Your task to perform on an android device: Open eBay Image 0: 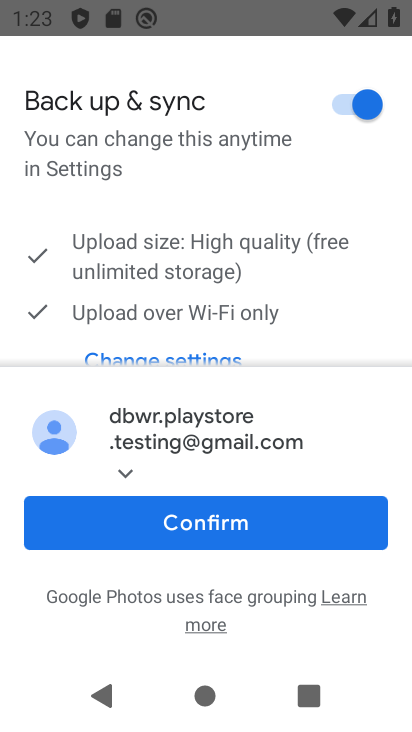
Step 0: press home button
Your task to perform on an android device: Open eBay Image 1: 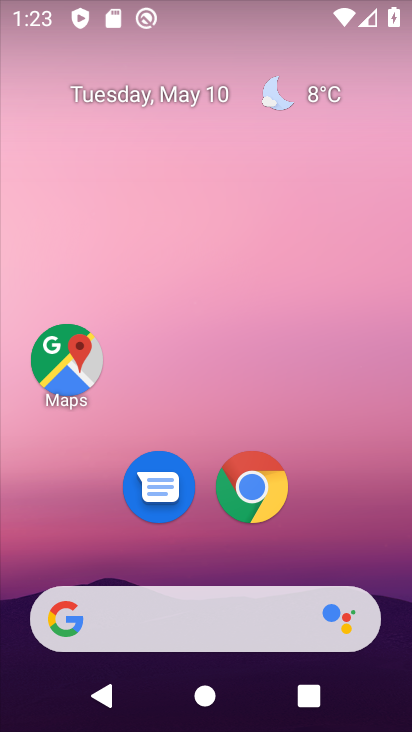
Step 1: drag from (311, 521) to (301, 49)
Your task to perform on an android device: Open eBay Image 2: 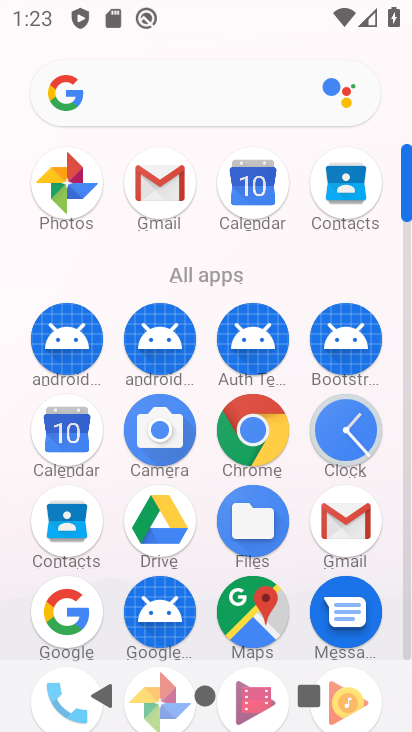
Step 2: click (236, 428)
Your task to perform on an android device: Open eBay Image 3: 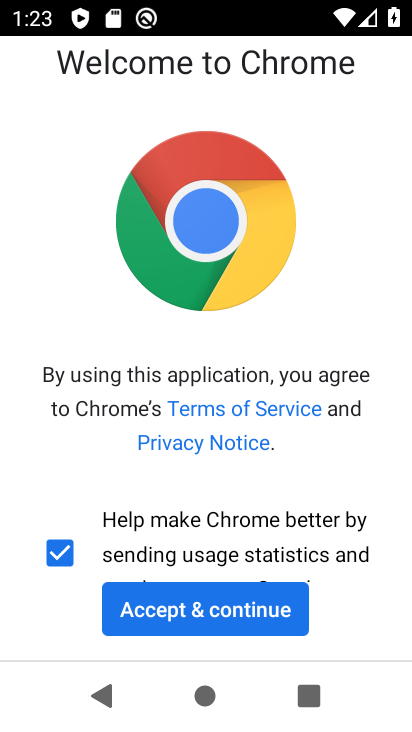
Step 3: click (227, 606)
Your task to perform on an android device: Open eBay Image 4: 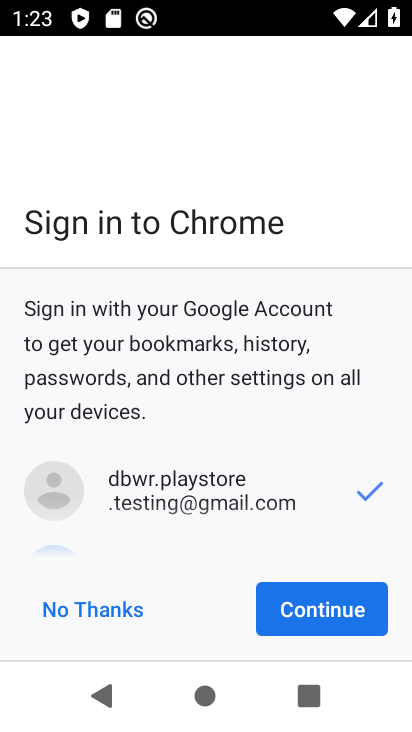
Step 4: click (318, 609)
Your task to perform on an android device: Open eBay Image 5: 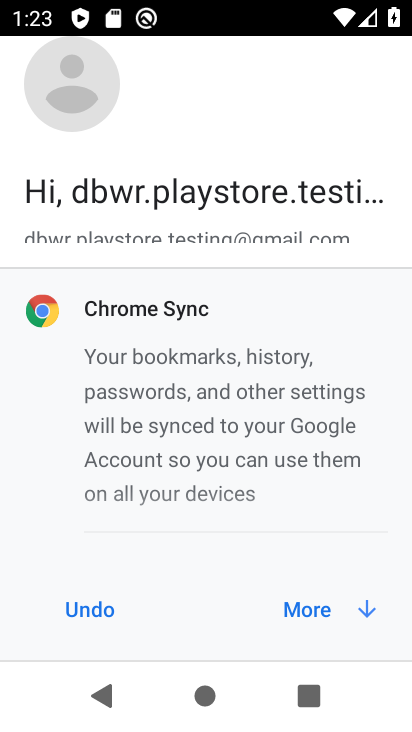
Step 5: click (309, 592)
Your task to perform on an android device: Open eBay Image 6: 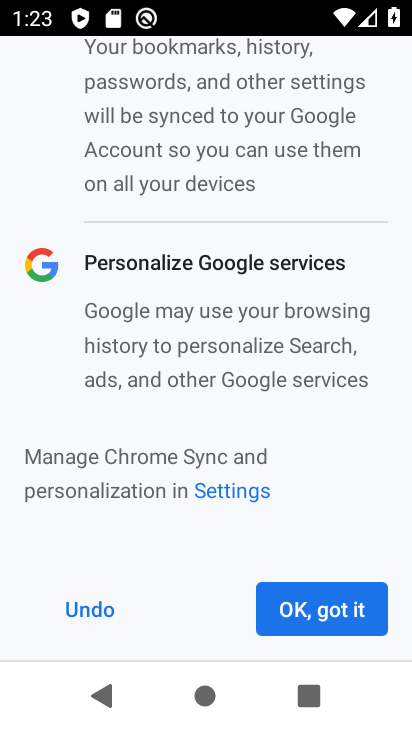
Step 6: click (309, 592)
Your task to perform on an android device: Open eBay Image 7: 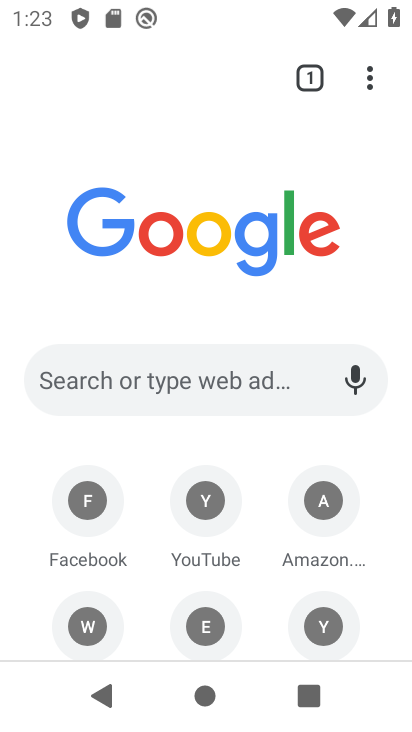
Step 7: click (228, 68)
Your task to perform on an android device: Open eBay Image 8: 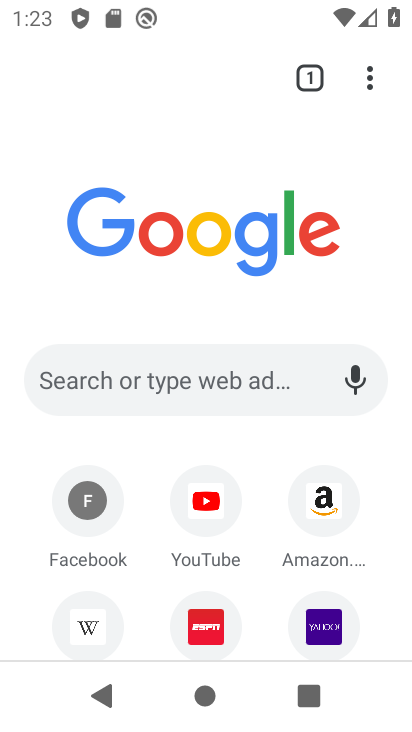
Step 8: click (294, 365)
Your task to perform on an android device: Open eBay Image 9: 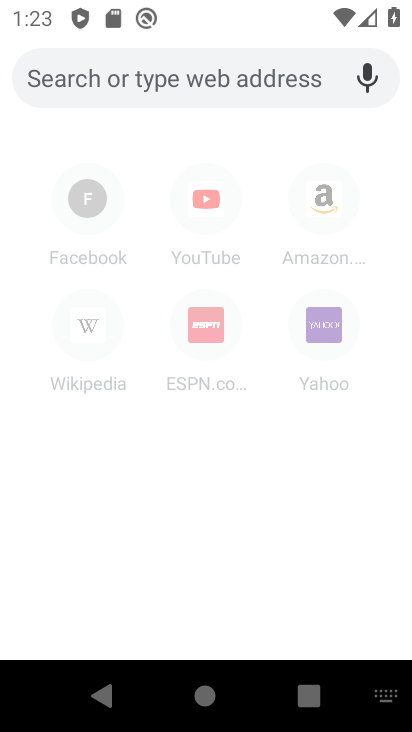
Step 9: type "ebay"
Your task to perform on an android device: Open eBay Image 10: 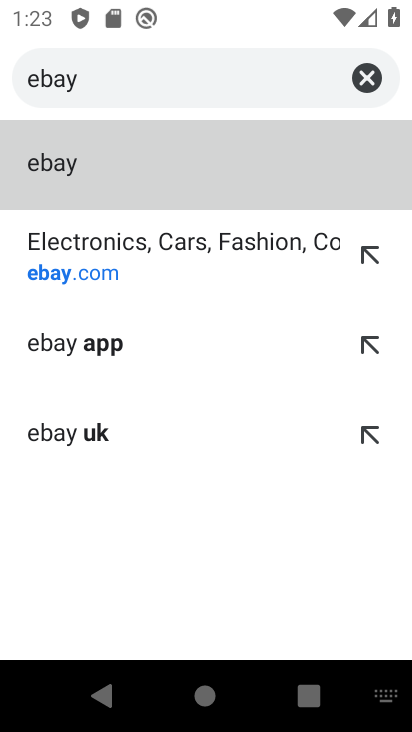
Step 10: click (77, 264)
Your task to perform on an android device: Open eBay Image 11: 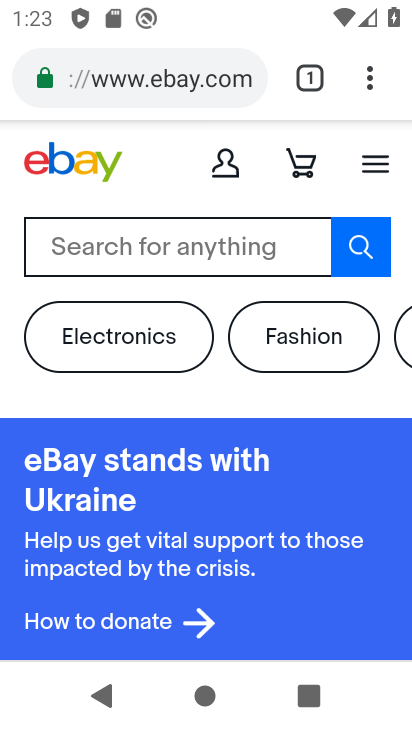
Step 11: task complete